Your task to perform on an android device: Go to Amazon Image 0: 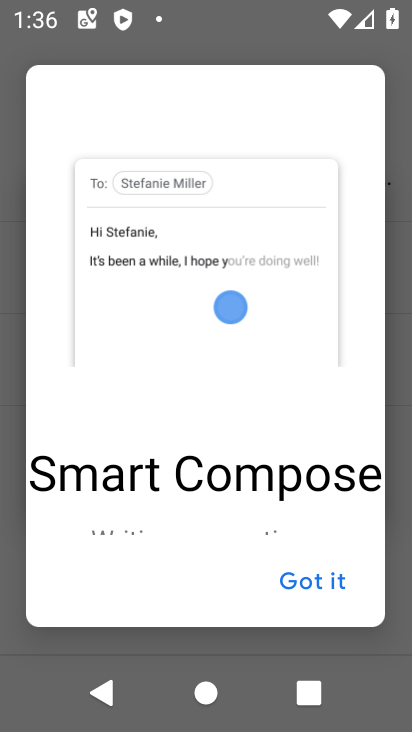
Step 0: press home button
Your task to perform on an android device: Go to Amazon Image 1: 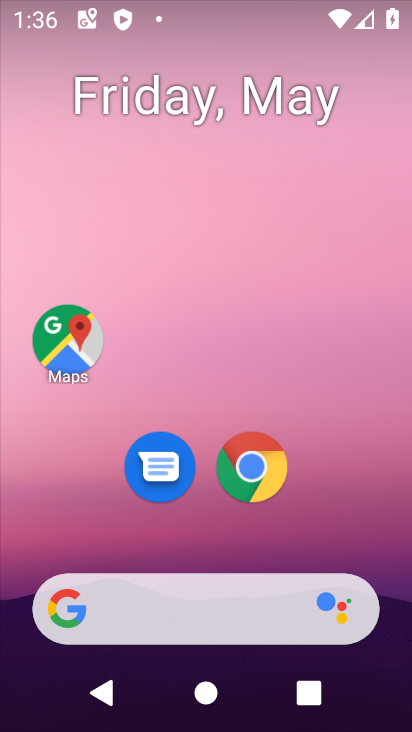
Step 1: click (190, 588)
Your task to perform on an android device: Go to Amazon Image 2: 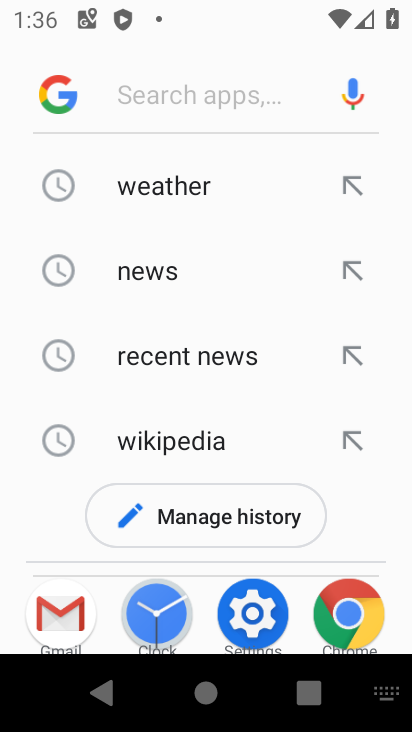
Step 2: type "Amazon"
Your task to perform on an android device: Go to Amazon Image 3: 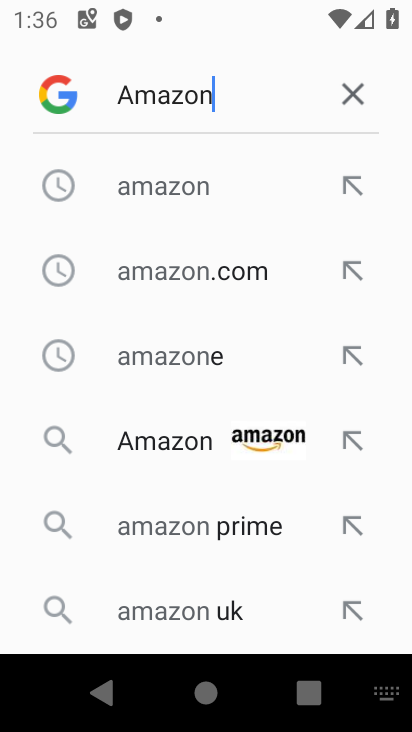
Step 3: click (188, 183)
Your task to perform on an android device: Go to Amazon Image 4: 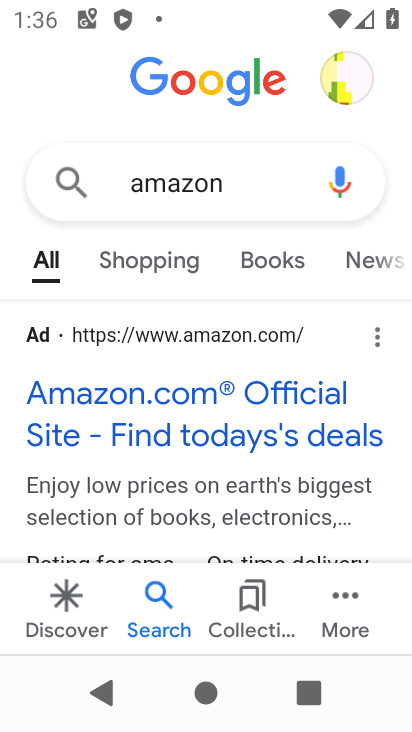
Step 4: click (123, 420)
Your task to perform on an android device: Go to Amazon Image 5: 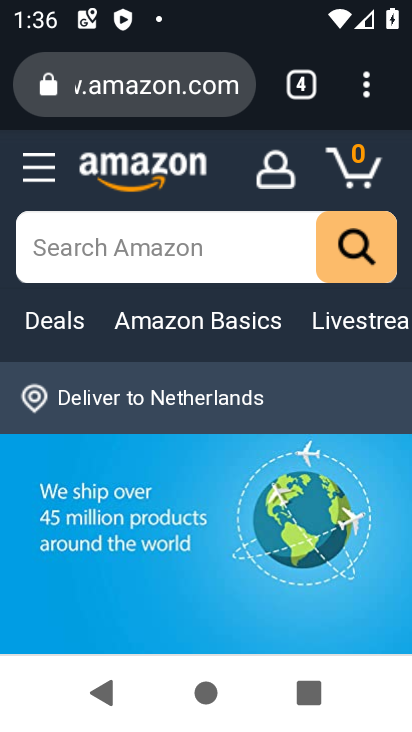
Step 5: task complete